Your task to perform on an android device: Check the weather Image 0: 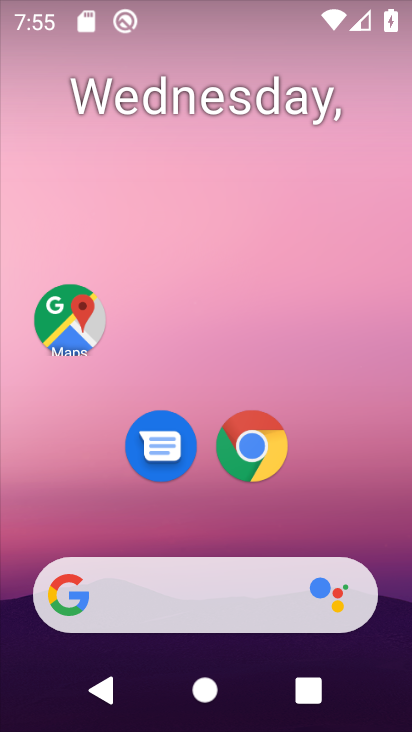
Step 0: press home button
Your task to perform on an android device: Check the weather Image 1: 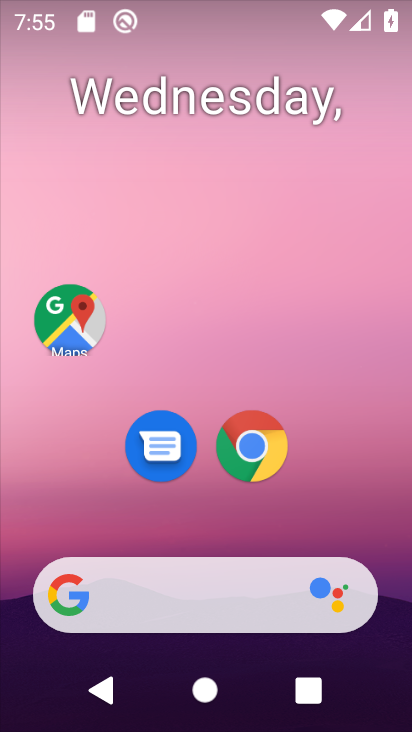
Step 1: drag from (10, 223) to (411, 256)
Your task to perform on an android device: Check the weather Image 2: 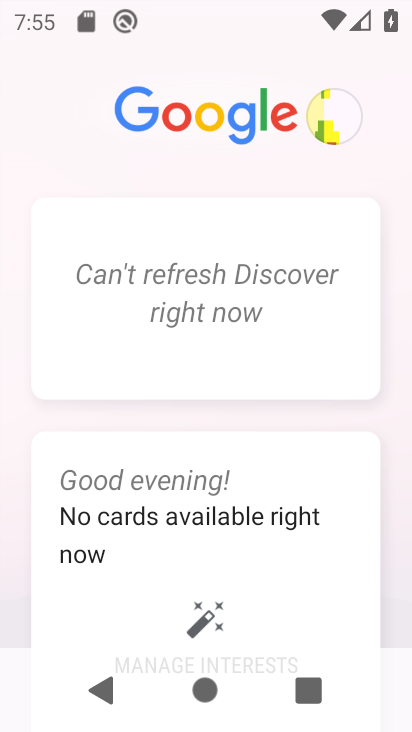
Step 2: drag from (212, 228) to (204, 640)
Your task to perform on an android device: Check the weather Image 3: 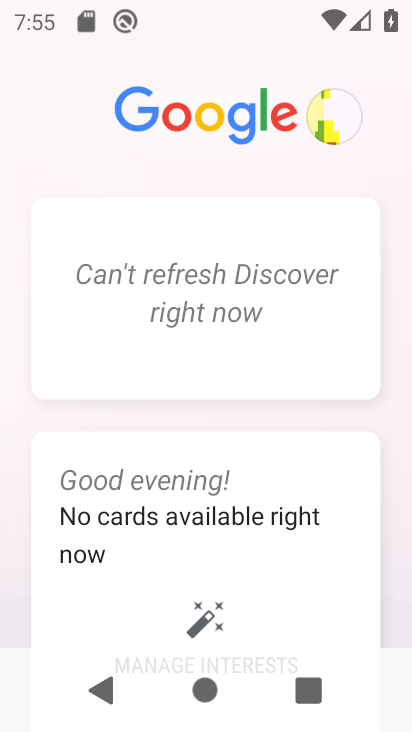
Step 3: click (208, 332)
Your task to perform on an android device: Check the weather Image 4: 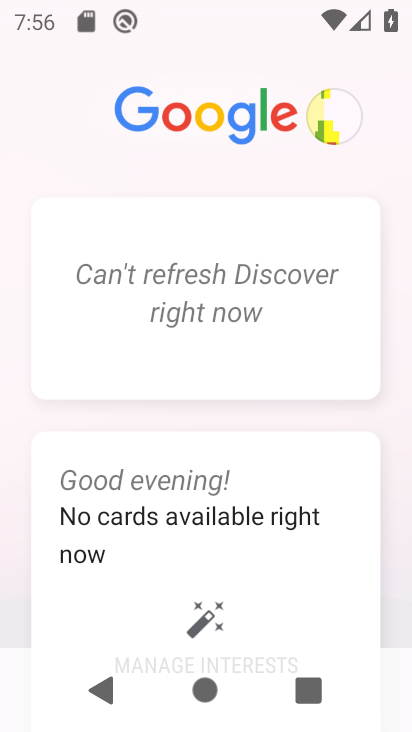
Step 4: drag from (220, 468) to (220, 646)
Your task to perform on an android device: Check the weather Image 5: 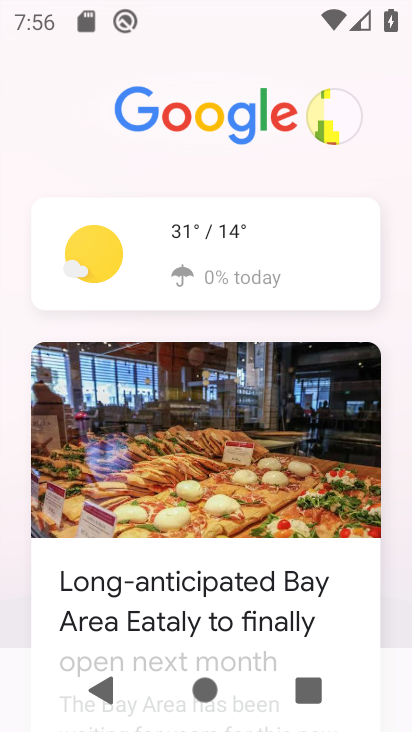
Step 5: click (218, 245)
Your task to perform on an android device: Check the weather Image 6: 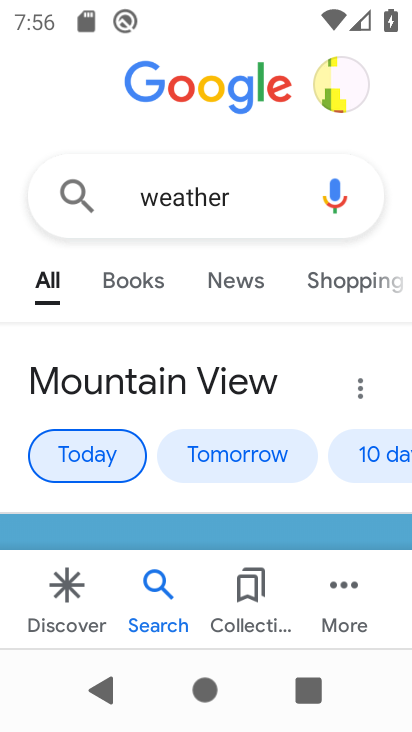
Step 6: task complete